Your task to perform on an android device: see sites visited before in the chrome app Image 0: 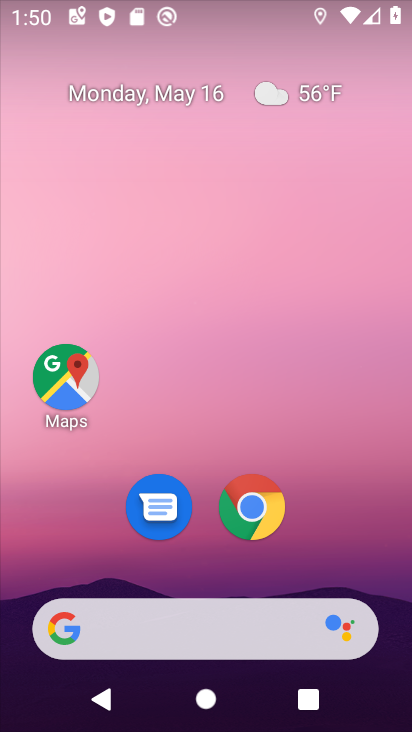
Step 0: drag from (223, 558) to (248, 49)
Your task to perform on an android device: see sites visited before in the chrome app Image 1: 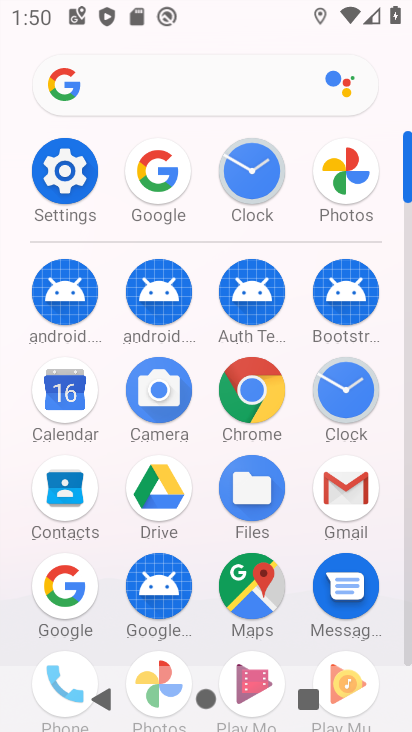
Step 1: click (251, 387)
Your task to perform on an android device: see sites visited before in the chrome app Image 2: 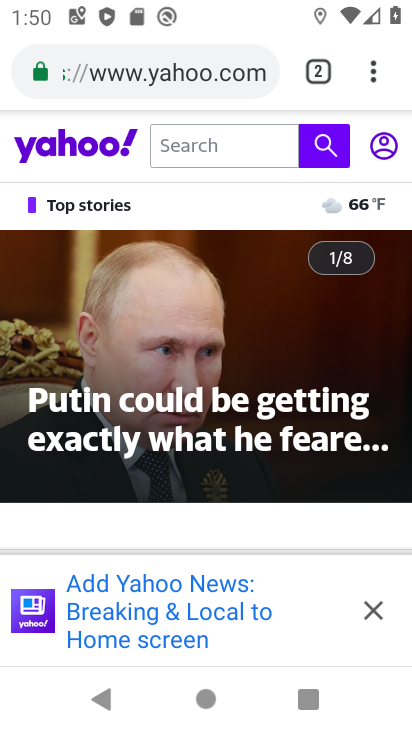
Step 2: click (362, 80)
Your task to perform on an android device: see sites visited before in the chrome app Image 3: 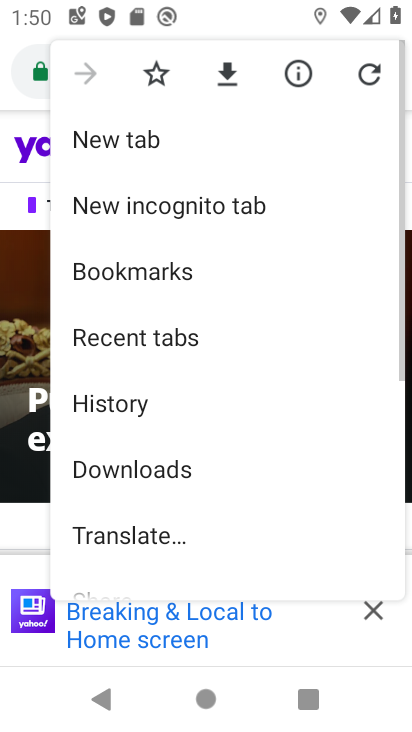
Step 3: drag from (199, 471) to (205, 337)
Your task to perform on an android device: see sites visited before in the chrome app Image 4: 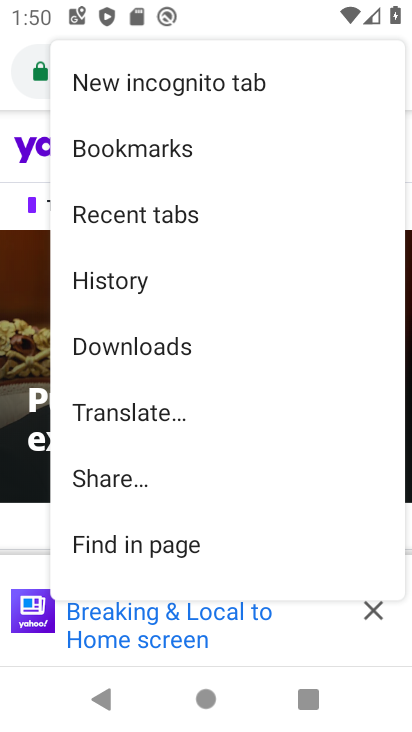
Step 4: drag from (183, 236) to (218, 351)
Your task to perform on an android device: see sites visited before in the chrome app Image 5: 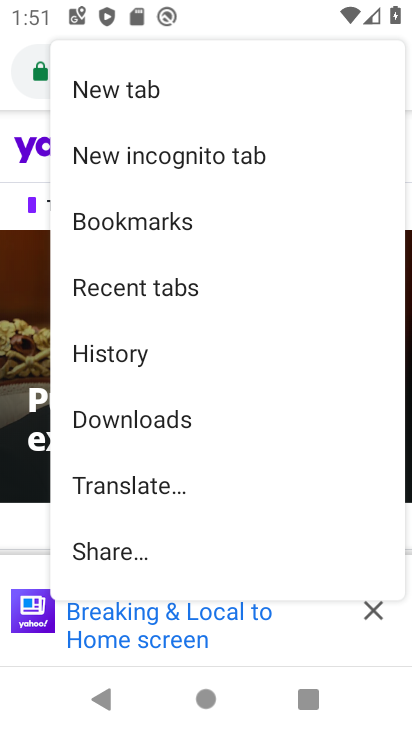
Step 5: click (120, 342)
Your task to perform on an android device: see sites visited before in the chrome app Image 6: 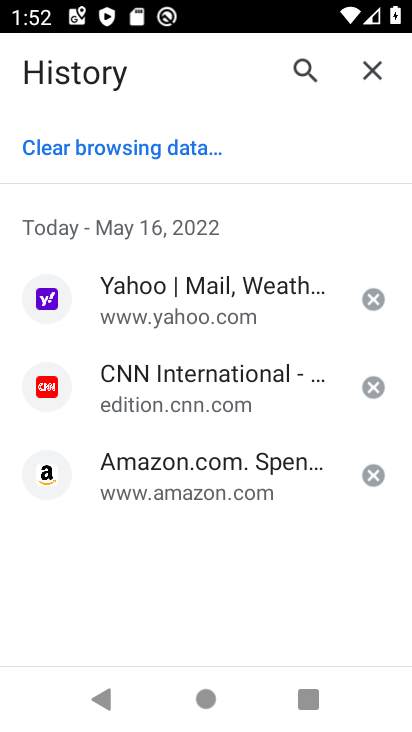
Step 6: task complete